Your task to perform on an android device: Play the last video I watched on Youtube Image 0: 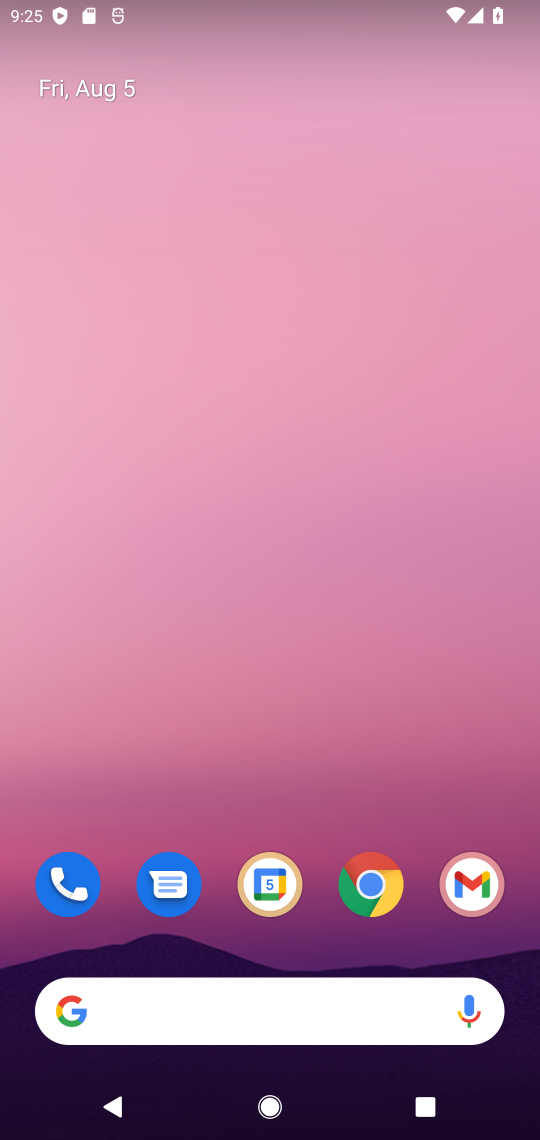
Step 0: drag from (365, 674) to (324, 294)
Your task to perform on an android device: Play the last video I watched on Youtube Image 1: 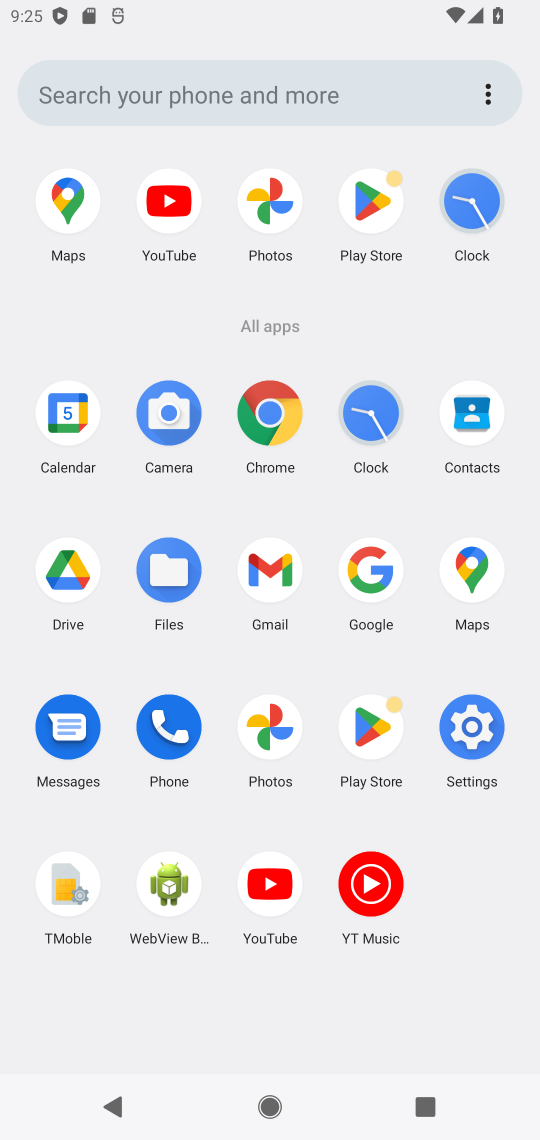
Step 1: click (273, 887)
Your task to perform on an android device: Play the last video I watched on Youtube Image 2: 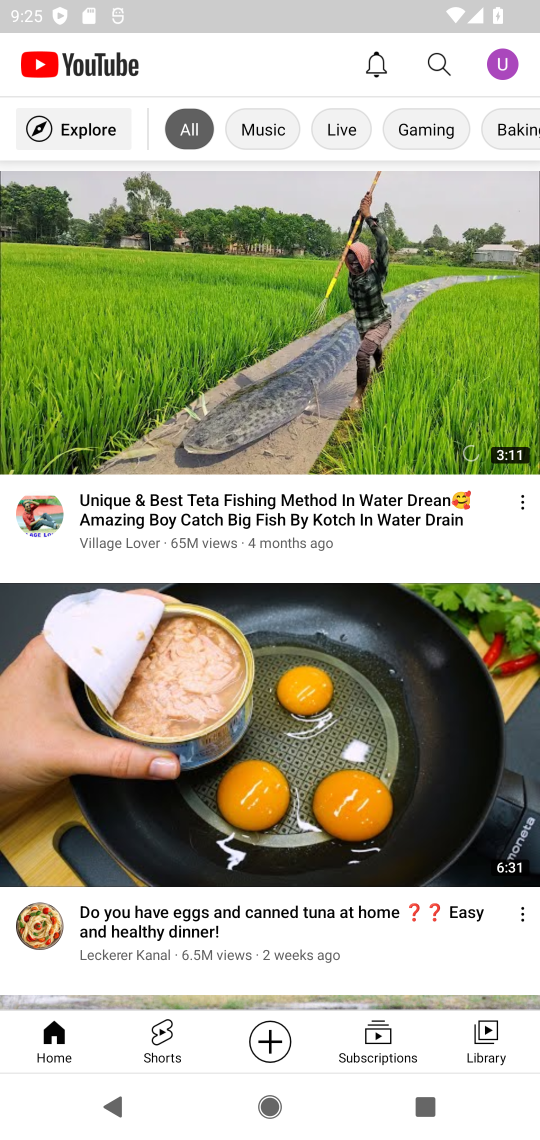
Step 2: task complete